Your task to perform on an android device: Go to calendar. Show me events next week Image 0: 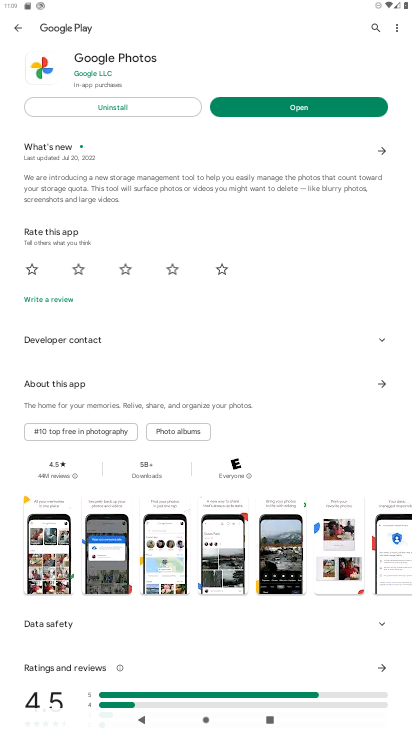
Step 0: press home button
Your task to perform on an android device: Go to calendar. Show me events next week Image 1: 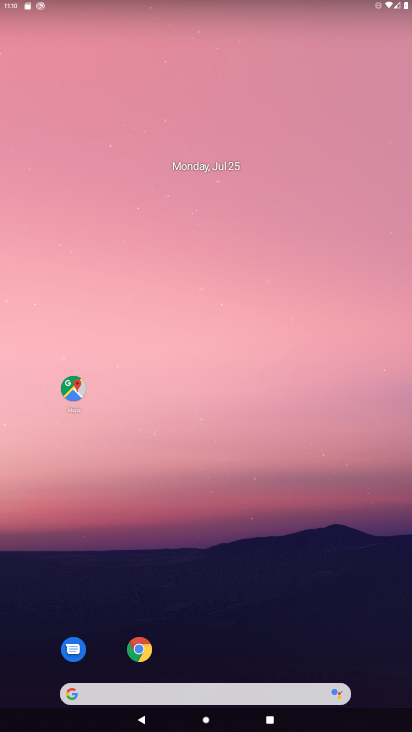
Step 1: drag from (368, 678) to (346, 52)
Your task to perform on an android device: Go to calendar. Show me events next week Image 2: 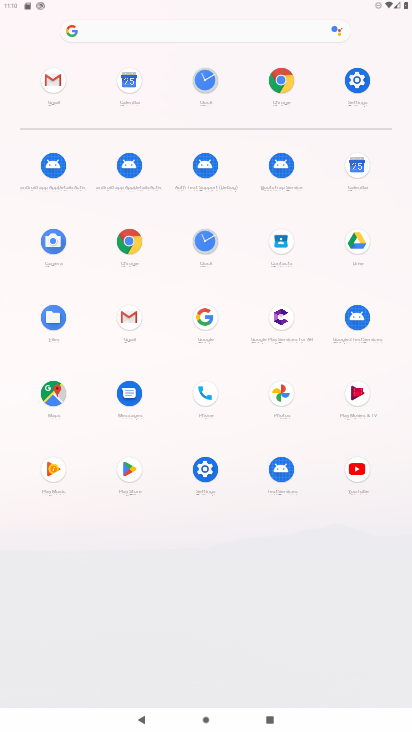
Step 2: click (358, 166)
Your task to perform on an android device: Go to calendar. Show me events next week Image 3: 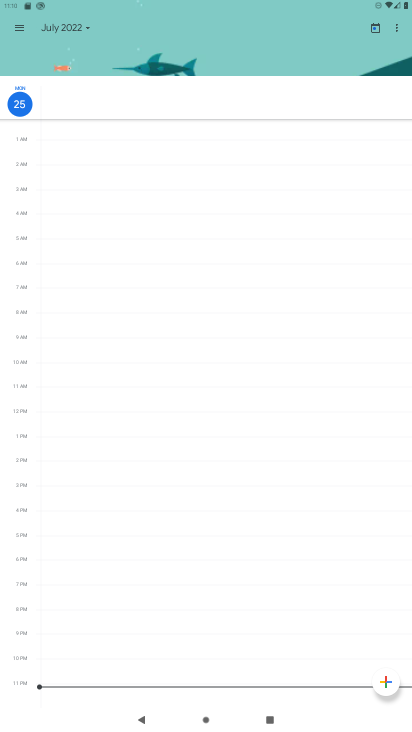
Step 3: click (12, 29)
Your task to perform on an android device: Go to calendar. Show me events next week Image 4: 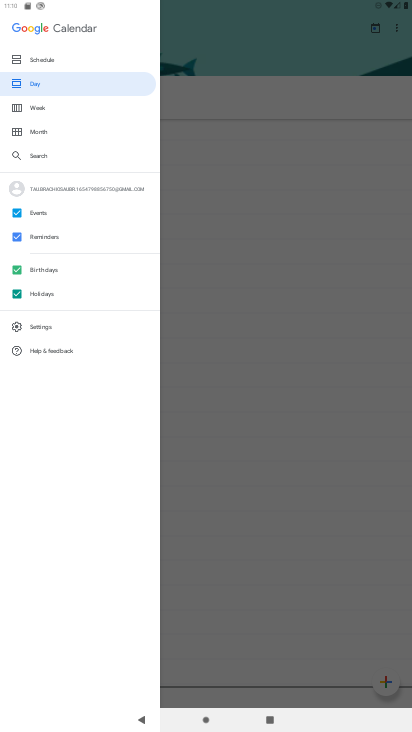
Step 4: click (33, 106)
Your task to perform on an android device: Go to calendar. Show me events next week Image 5: 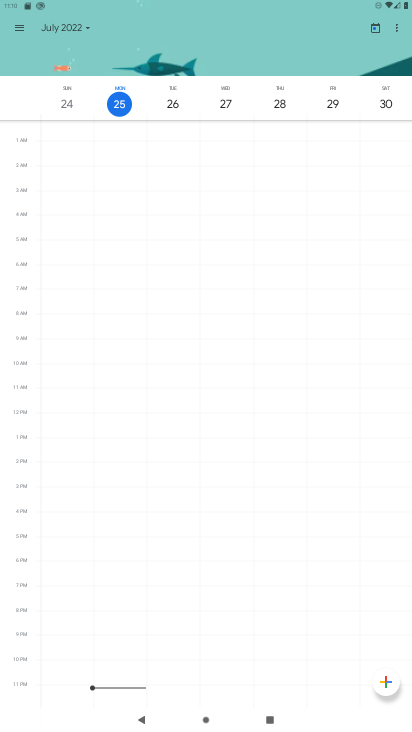
Step 5: click (84, 31)
Your task to perform on an android device: Go to calendar. Show me events next week Image 6: 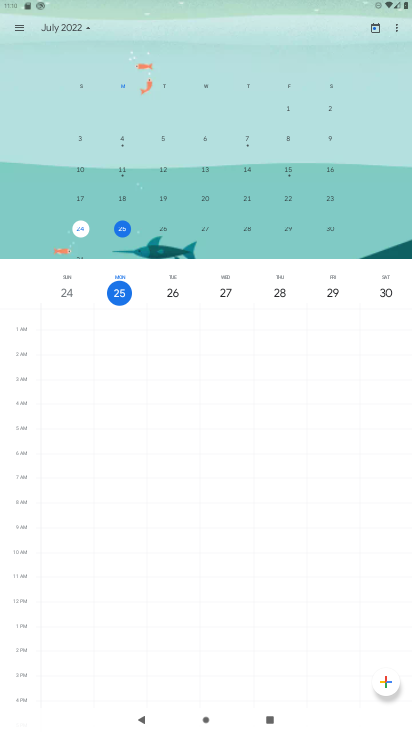
Step 6: drag from (339, 219) to (19, 194)
Your task to perform on an android device: Go to calendar. Show me events next week Image 7: 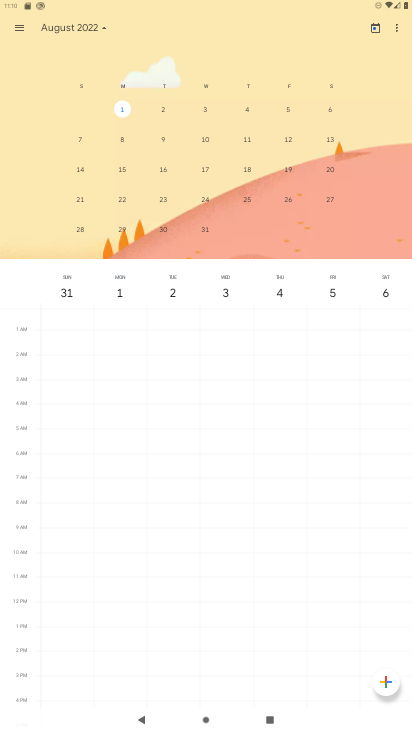
Step 7: click (117, 106)
Your task to perform on an android device: Go to calendar. Show me events next week Image 8: 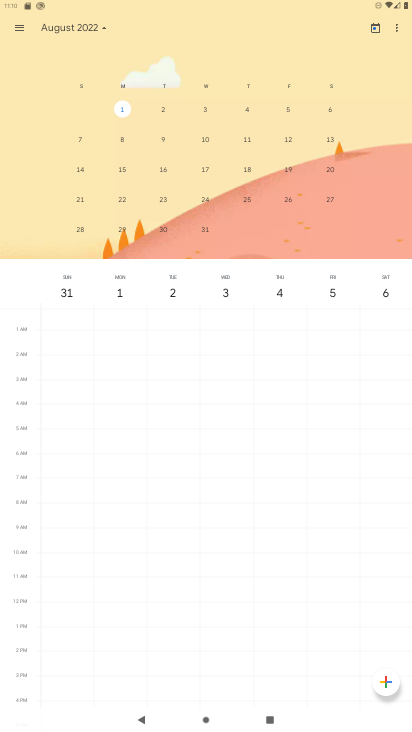
Step 8: task complete